Your task to perform on an android device: Open settings Image 0: 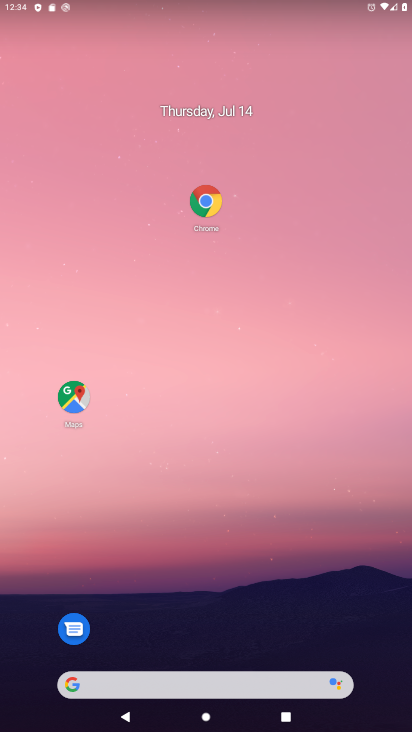
Step 0: drag from (178, 669) to (153, 156)
Your task to perform on an android device: Open settings Image 1: 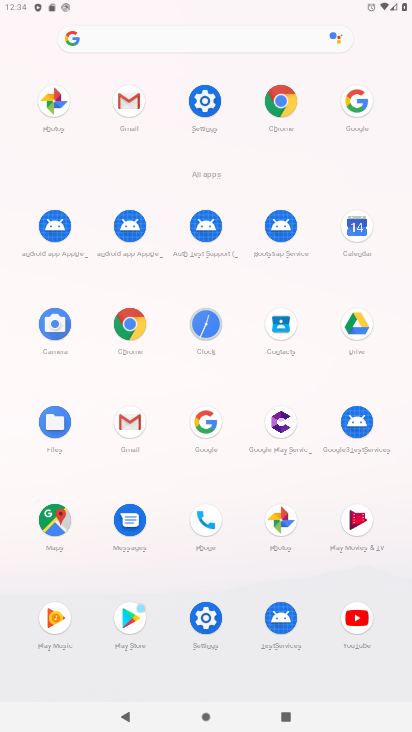
Step 1: click (194, 107)
Your task to perform on an android device: Open settings Image 2: 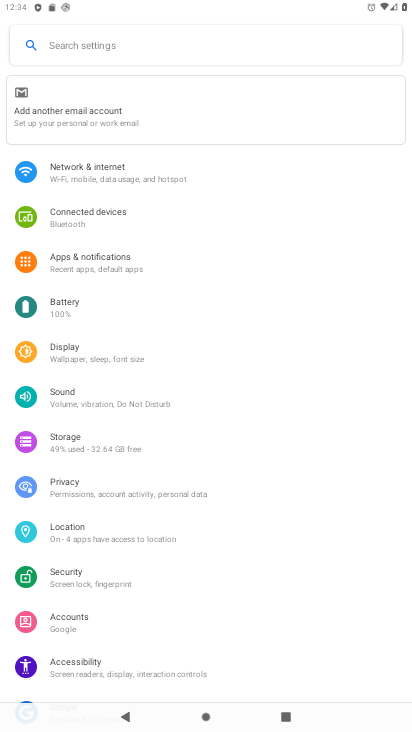
Step 2: task complete